Your task to perform on an android device: Open Wikipedia Image 0: 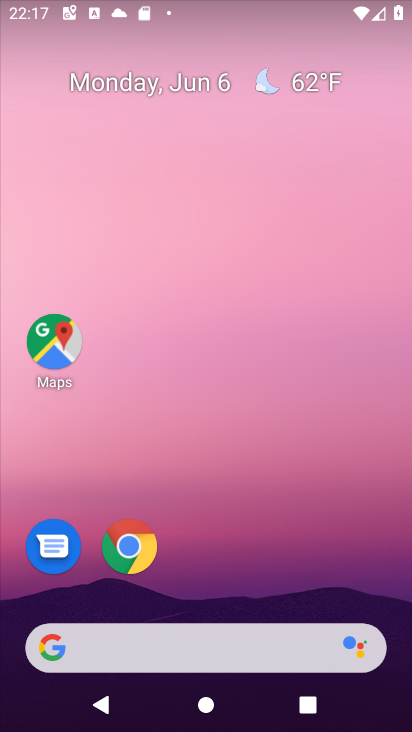
Step 0: click (122, 545)
Your task to perform on an android device: Open Wikipedia Image 1: 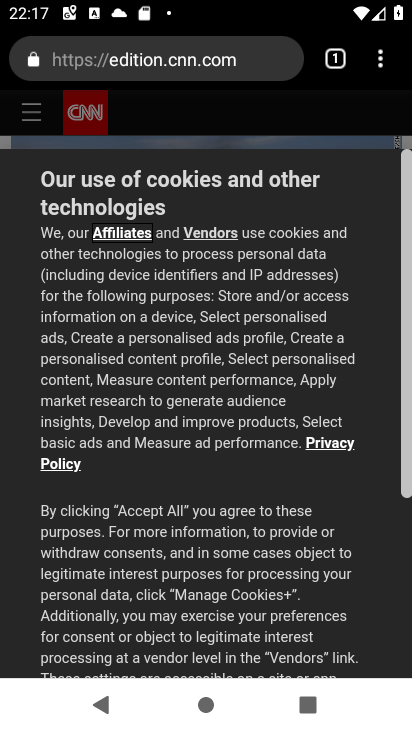
Step 1: click (280, 59)
Your task to perform on an android device: Open Wikipedia Image 2: 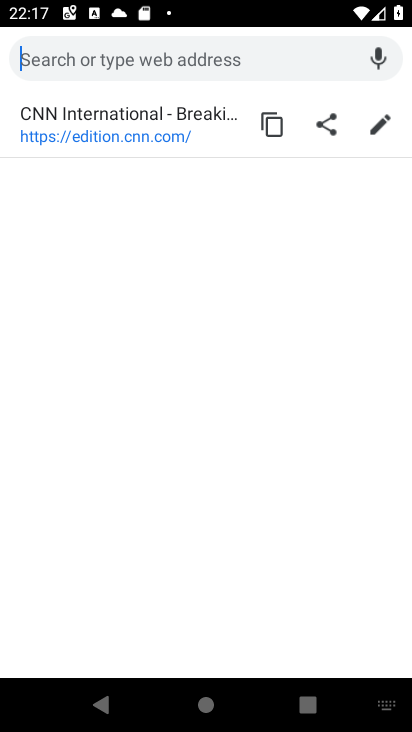
Step 2: type "wikipedia"
Your task to perform on an android device: Open Wikipedia Image 3: 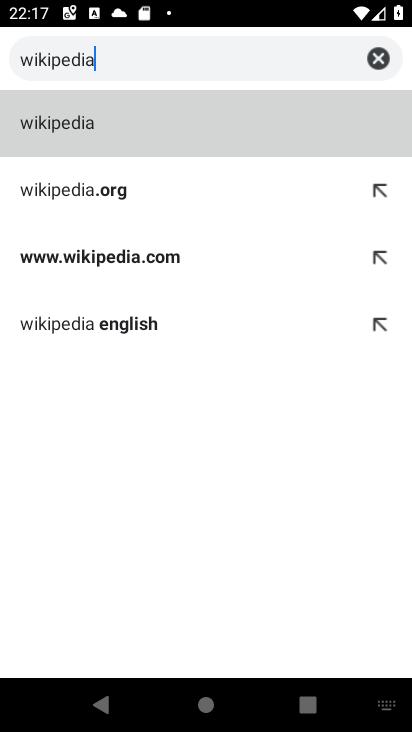
Step 3: click (57, 112)
Your task to perform on an android device: Open Wikipedia Image 4: 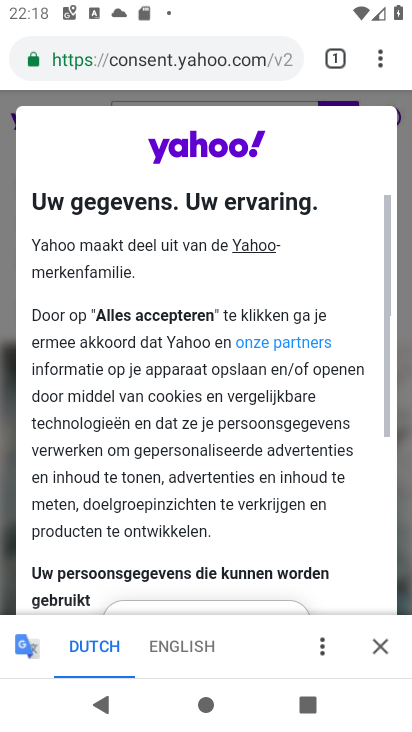
Step 4: drag from (238, 535) to (268, 310)
Your task to perform on an android device: Open Wikipedia Image 5: 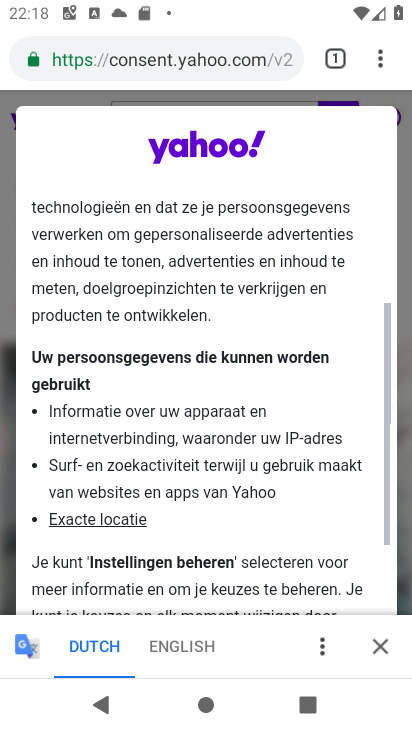
Step 5: click (374, 642)
Your task to perform on an android device: Open Wikipedia Image 6: 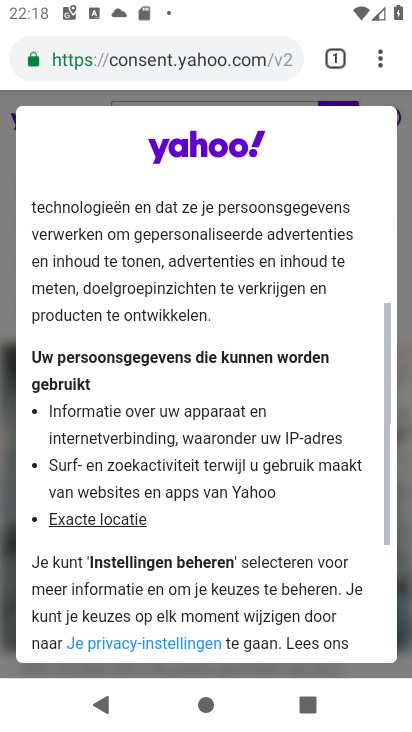
Step 6: drag from (300, 547) to (248, 102)
Your task to perform on an android device: Open Wikipedia Image 7: 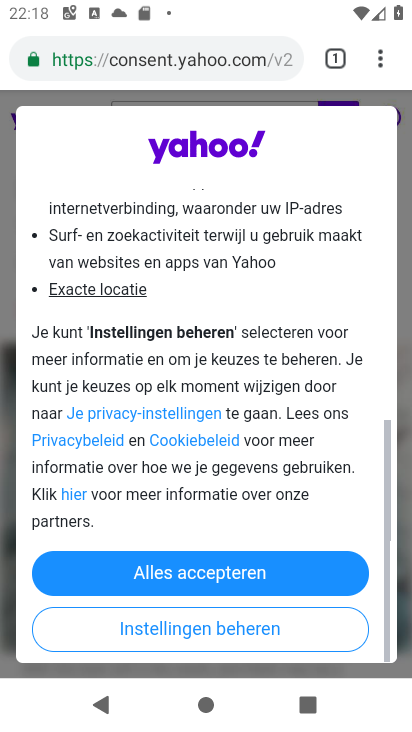
Step 7: click (214, 573)
Your task to perform on an android device: Open Wikipedia Image 8: 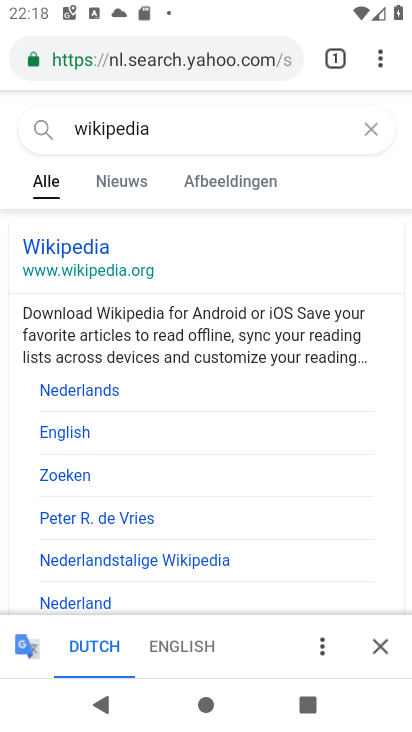
Step 8: click (85, 255)
Your task to perform on an android device: Open Wikipedia Image 9: 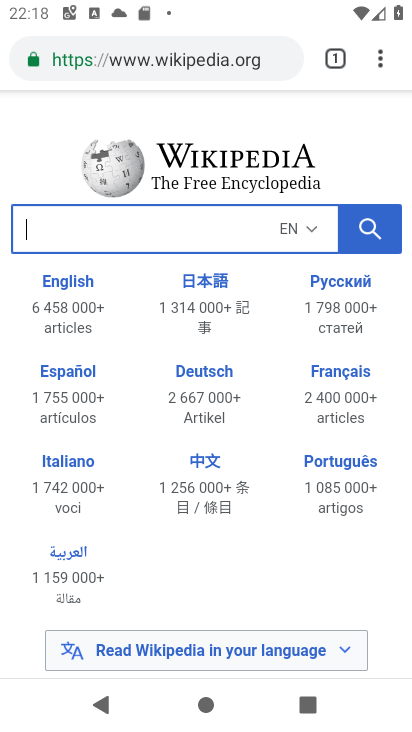
Step 9: task complete